Your task to perform on an android device: toggle notifications settings in the gmail app Image 0: 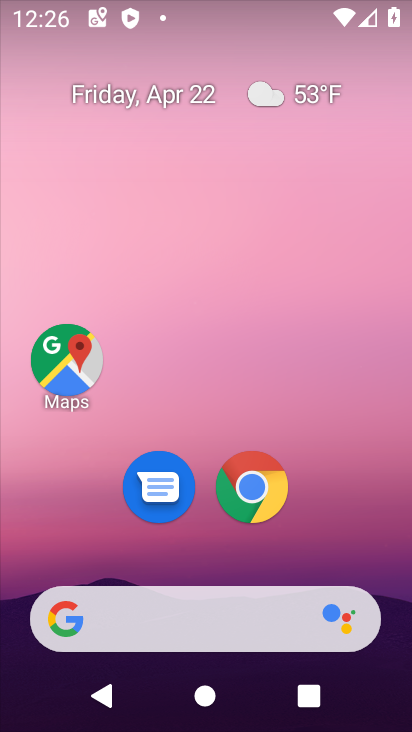
Step 0: drag from (311, 516) to (307, 122)
Your task to perform on an android device: toggle notifications settings in the gmail app Image 1: 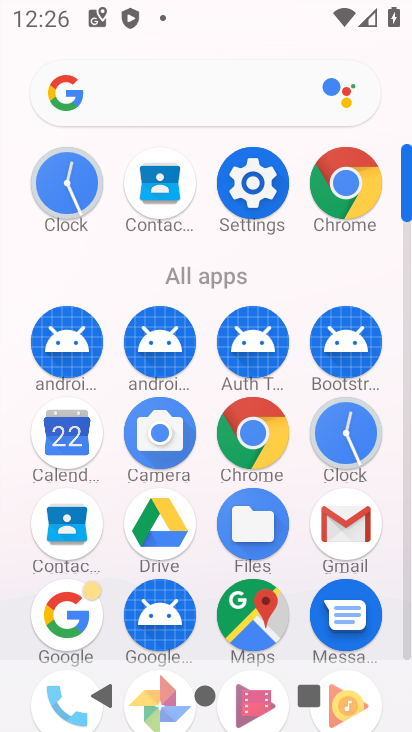
Step 1: click (257, 188)
Your task to perform on an android device: toggle notifications settings in the gmail app Image 2: 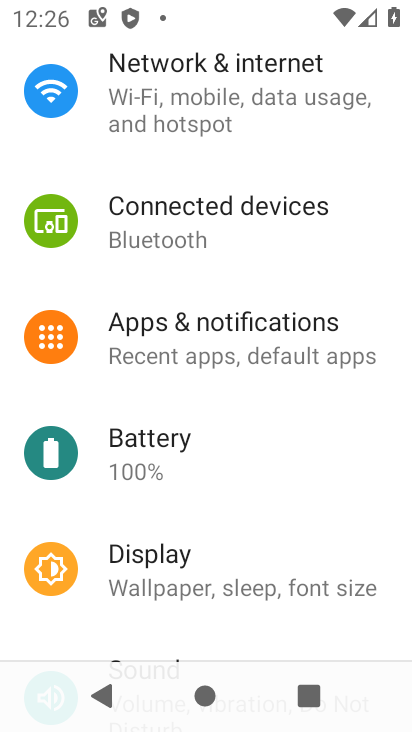
Step 2: click (236, 346)
Your task to perform on an android device: toggle notifications settings in the gmail app Image 3: 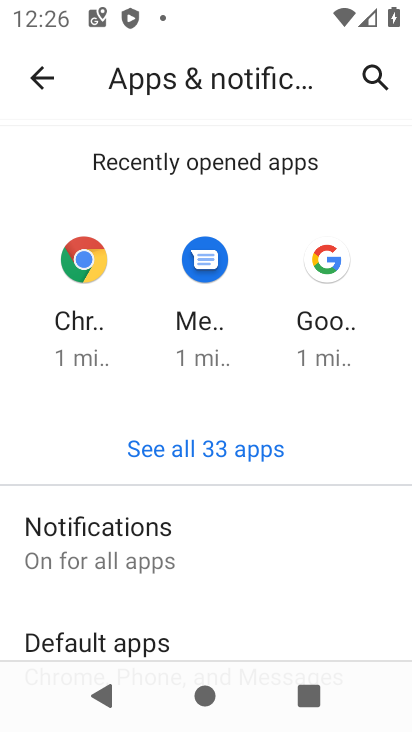
Step 3: click (250, 447)
Your task to perform on an android device: toggle notifications settings in the gmail app Image 4: 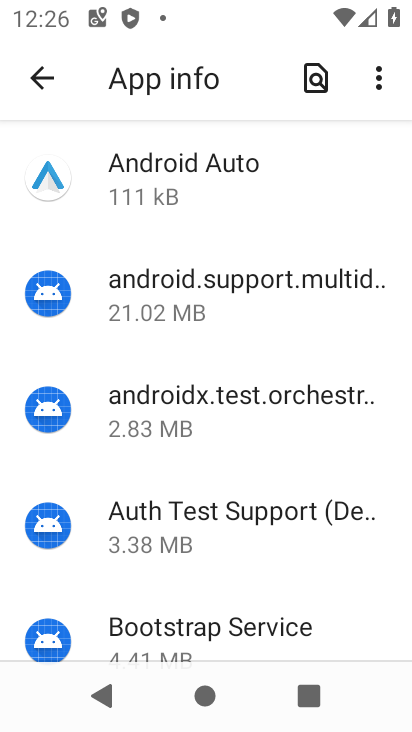
Step 4: drag from (243, 591) to (282, 129)
Your task to perform on an android device: toggle notifications settings in the gmail app Image 5: 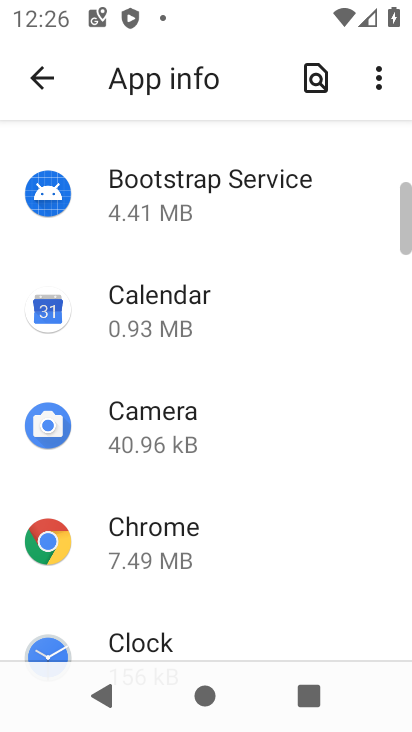
Step 5: drag from (238, 603) to (275, 174)
Your task to perform on an android device: toggle notifications settings in the gmail app Image 6: 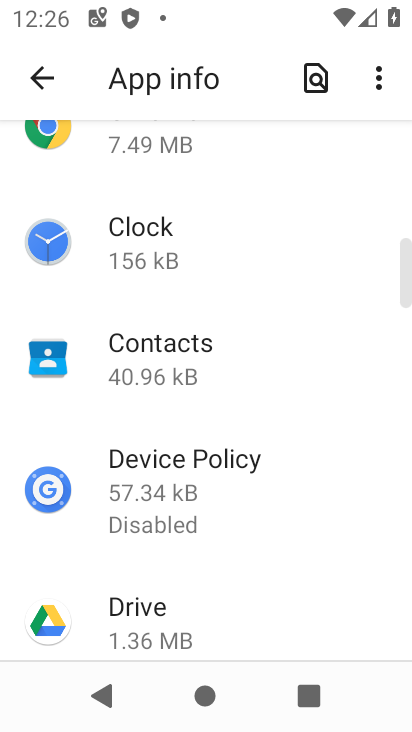
Step 6: drag from (225, 623) to (249, 166)
Your task to perform on an android device: toggle notifications settings in the gmail app Image 7: 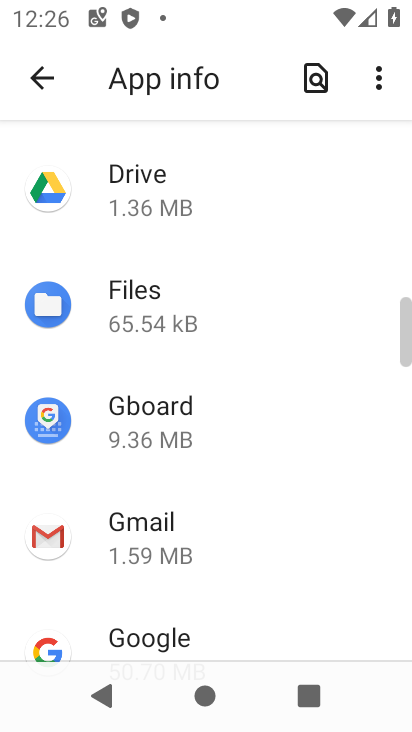
Step 7: click (221, 544)
Your task to perform on an android device: toggle notifications settings in the gmail app Image 8: 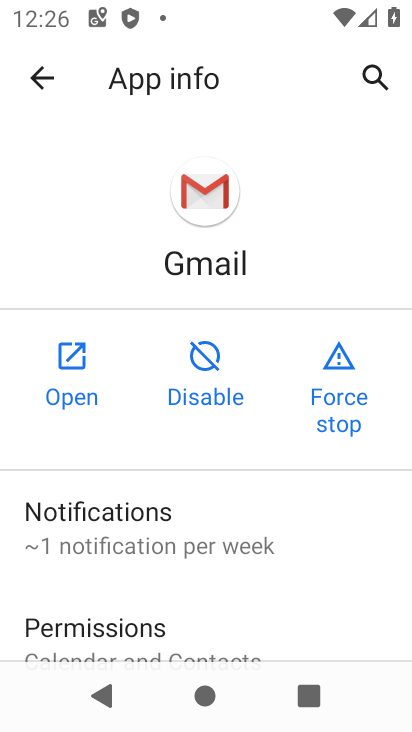
Step 8: click (222, 533)
Your task to perform on an android device: toggle notifications settings in the gmail app Image 9: 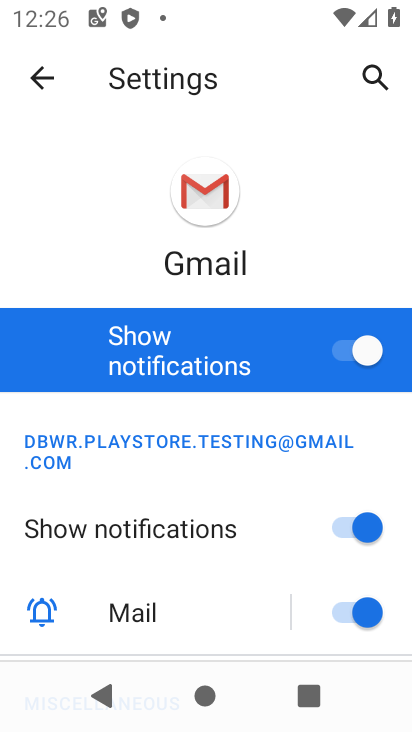
Step 9: click (342, 342)
Your task to perform on an android device: toggle notifications settings in the gmail app Image 10: 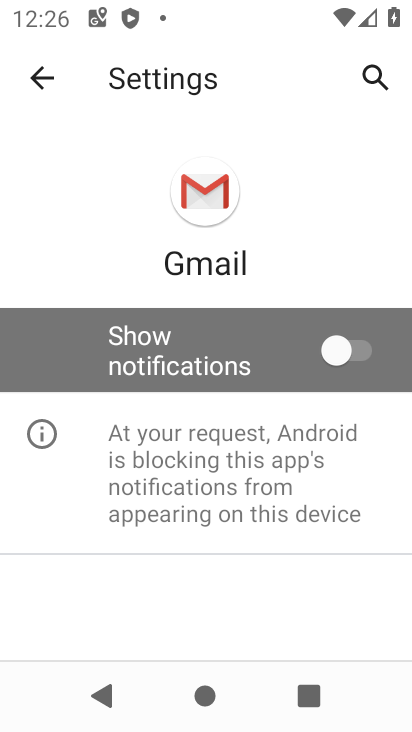
Step 10: task complete